Your task to perform on an android device: clear all cookies in the chrome app Image 0: 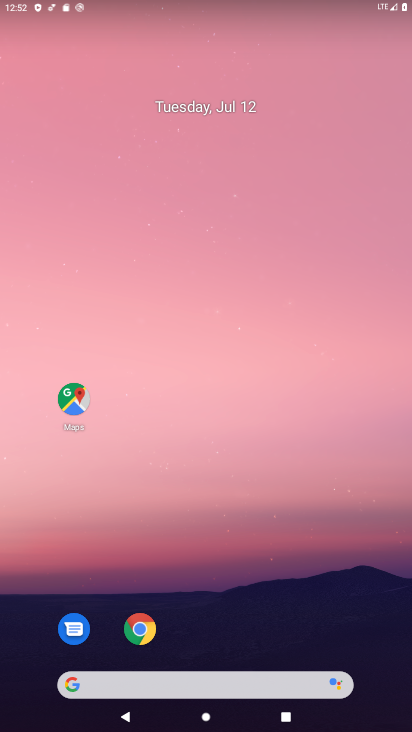
Step 0: drag from (270, 676) to (313, 0)
Your task to perform on an android device: clear all cookies in the chrome app Image 1: 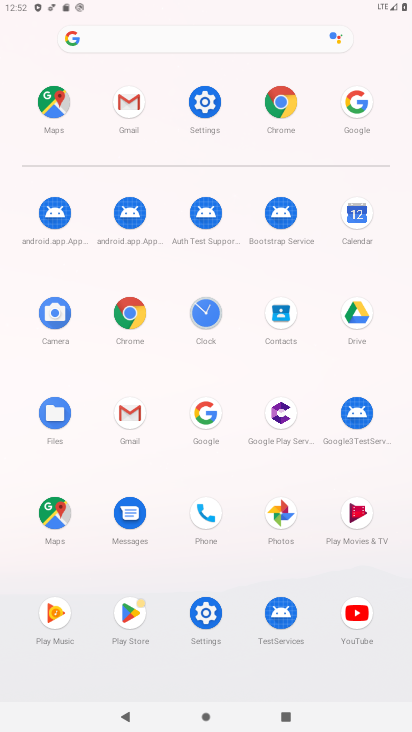
Step 1: click (117, 321)
Your task to perform on an android device: clear all cookies in the chrome app Image 2: 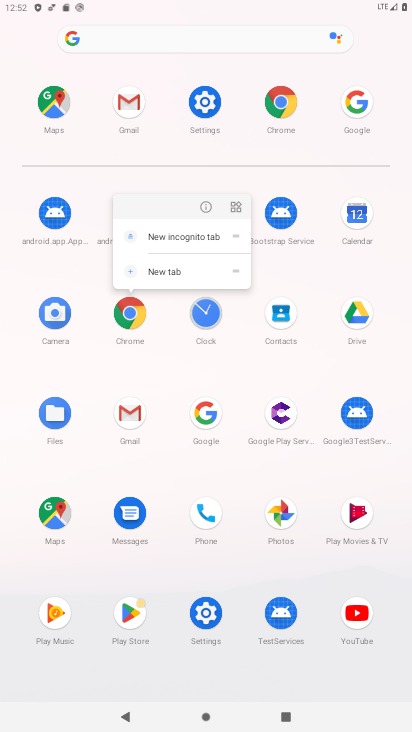
Step 2: click (130, 318)
Your task to perform on an android device: clear all cookies in the chrome app Image 3: 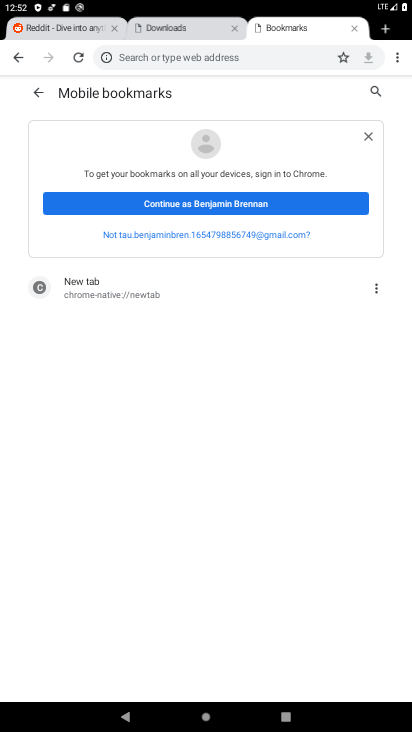
Step 3: drag from (397, 54) to (280, 265)
Your task to perform on an android device: clear all cookies in the chrome app Image 4: 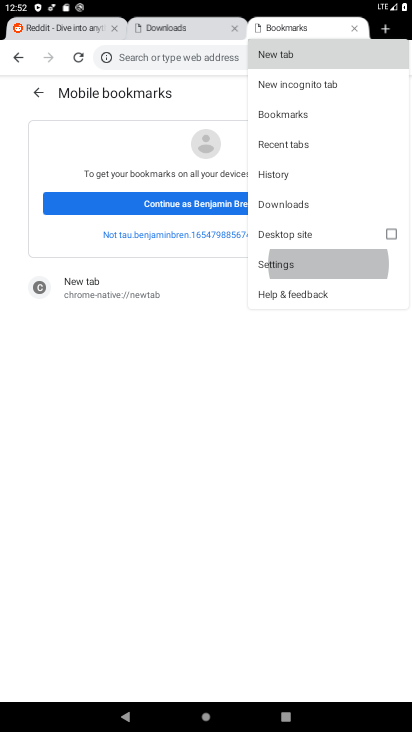
Step 4: drag from (397, 57) to (280, 265)
Your task to perform on an android device: clear all cookies in the chrome app Image 5: 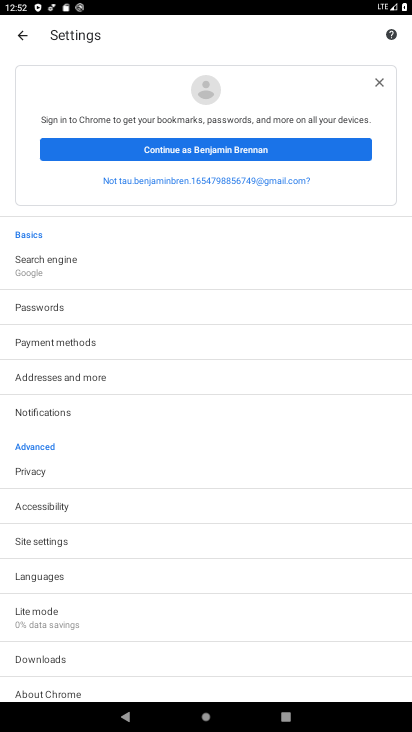
Step 5: click (76, 544)
Your task to perform on an android device: clear all cookies in the chrome app Image 6: 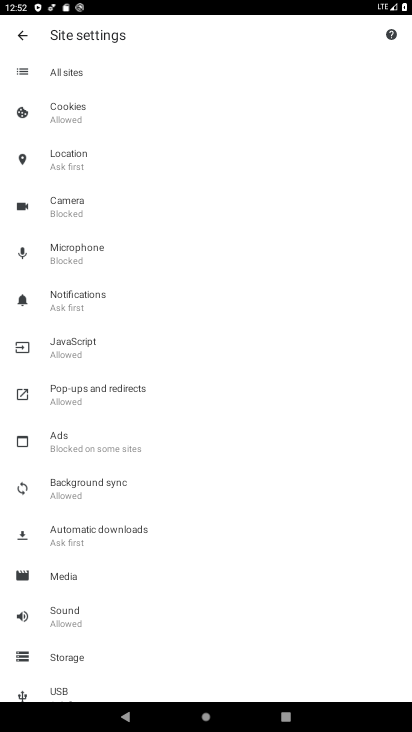
Step 6: press back button
Your task to perform on an android device: clear all cookies in the chrome app Image 7: 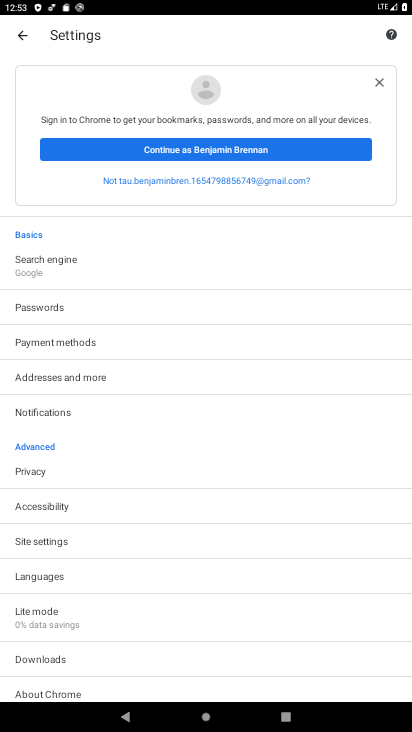
Step 7: click (73, 477)
Your task to perform on an android device: clear all cookies in the chrome app Image 8: 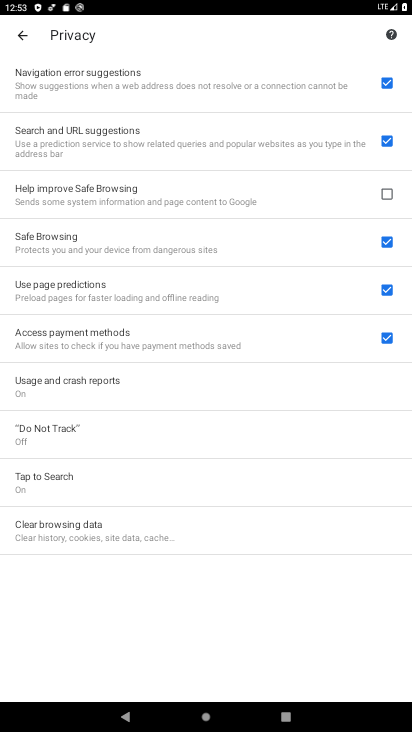
Step 8: click (191, 534)
Your task to perform on an android device: clear all cookies in the chrome app Image 9: 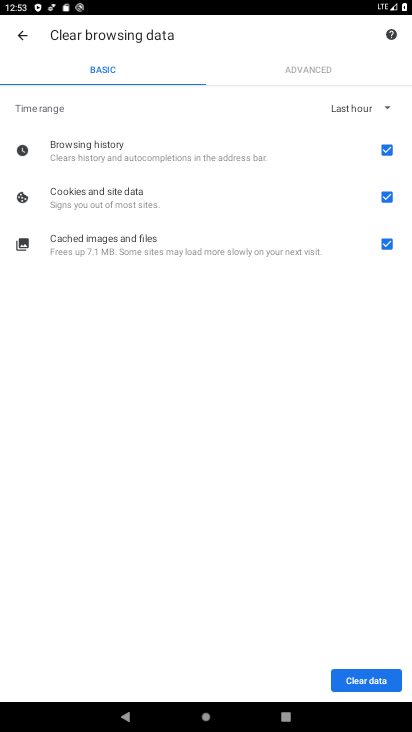
Step 9: click (365, 683)
Your task to perform on an android device: clear all cookies in the chrome app Image 10: 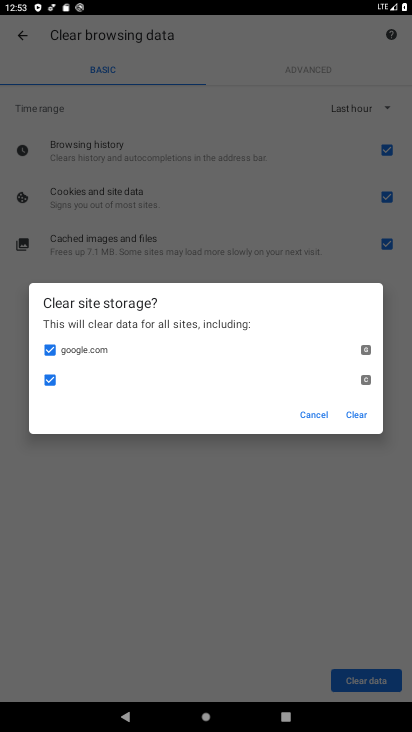
Step 10: click (361, 416)
Your task to perform on an android device: clear all cookies in the chrome app Image 11: 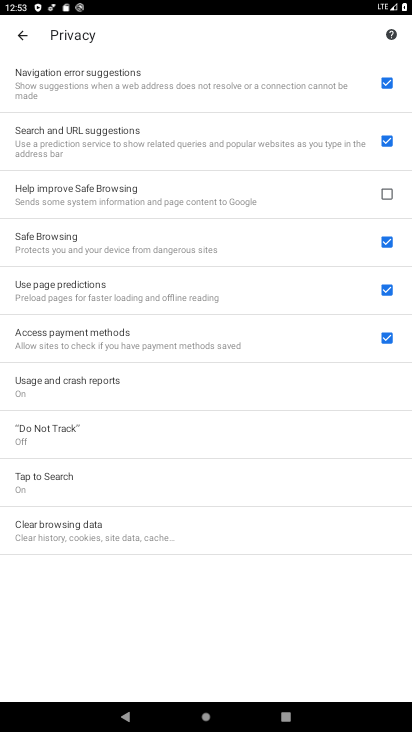
Step 11: task complete